Your task to perform on an android device: Look up the top rated 18v miter saw on Home Depot. Image 0: 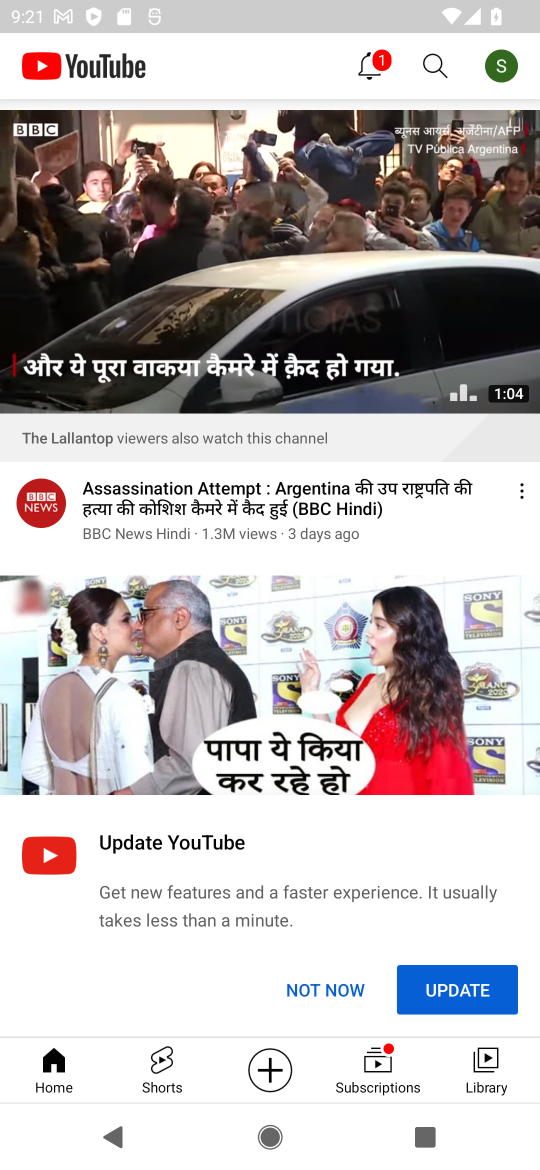
Step 0: press home button
Your task to perform on an android device: Look up the top rated 18v miter saw on Home Depot. Image 1: 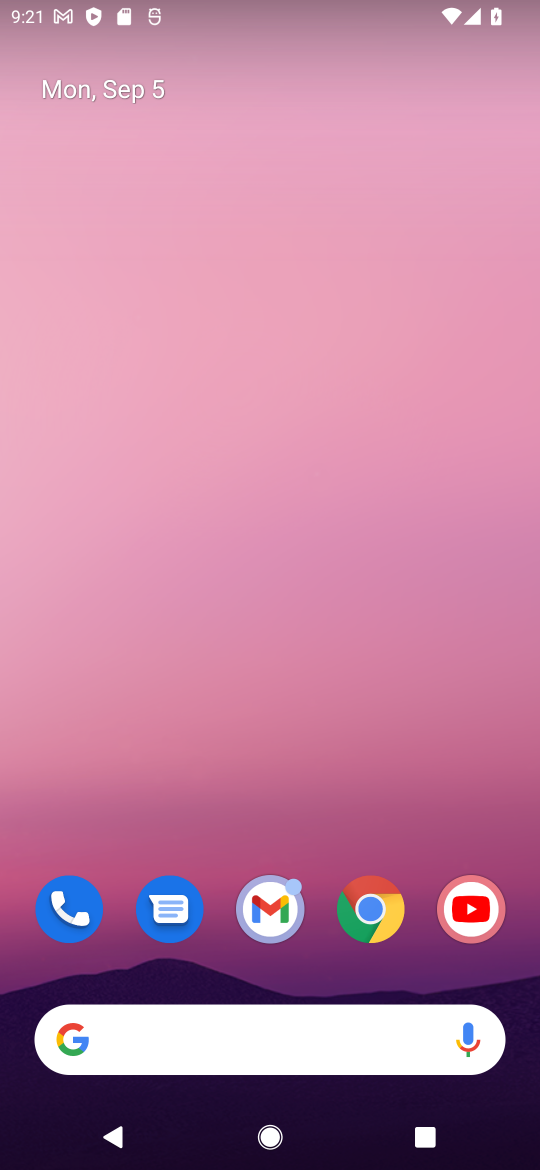
Step 1: click (346, 906)
Your task to perform on an android device: Look up the top rated 18v miter saw on Home Depot. Image 2: 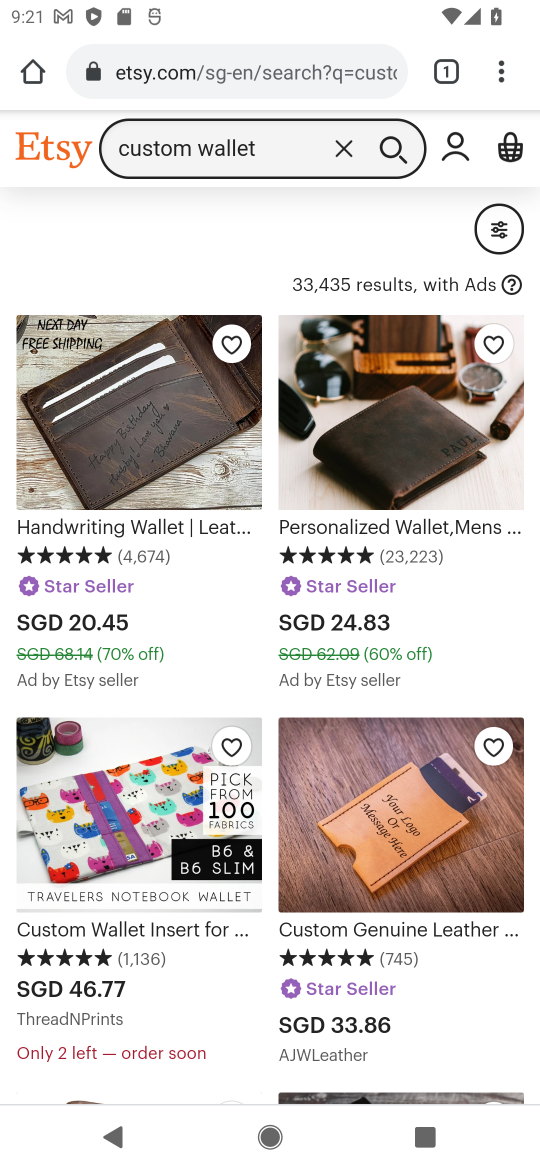
Step 2: click (280, 69)
Your task to perform on an android device: Look up the top rated 18v miter saw on Home Depot. Image 3: 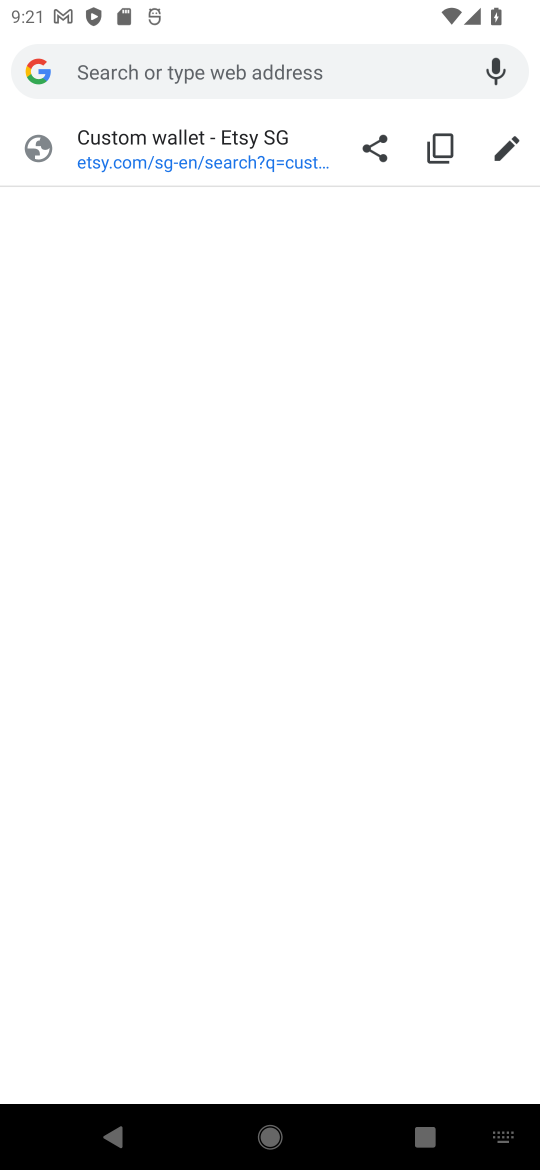
Step 3: type "homedepot"
Your task to perform on an android device: Look up the top rated 18v miter saw on Home Depot. Image 4: 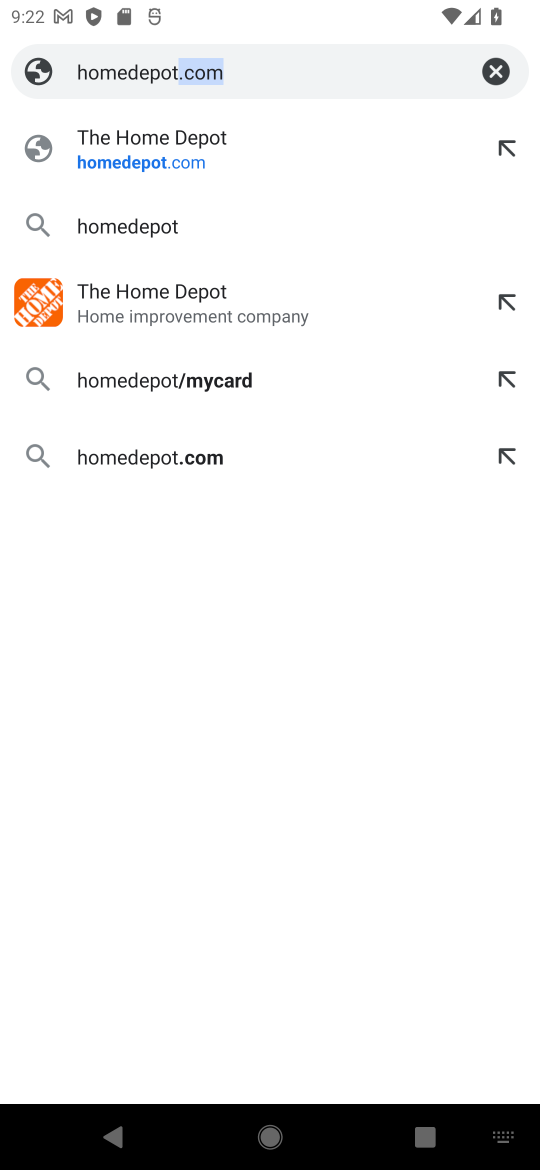
Step 4: click (247, 147)
Your task to perform on an android device: Look up the top rated 18v miter saw on Home Depot. Image 5: 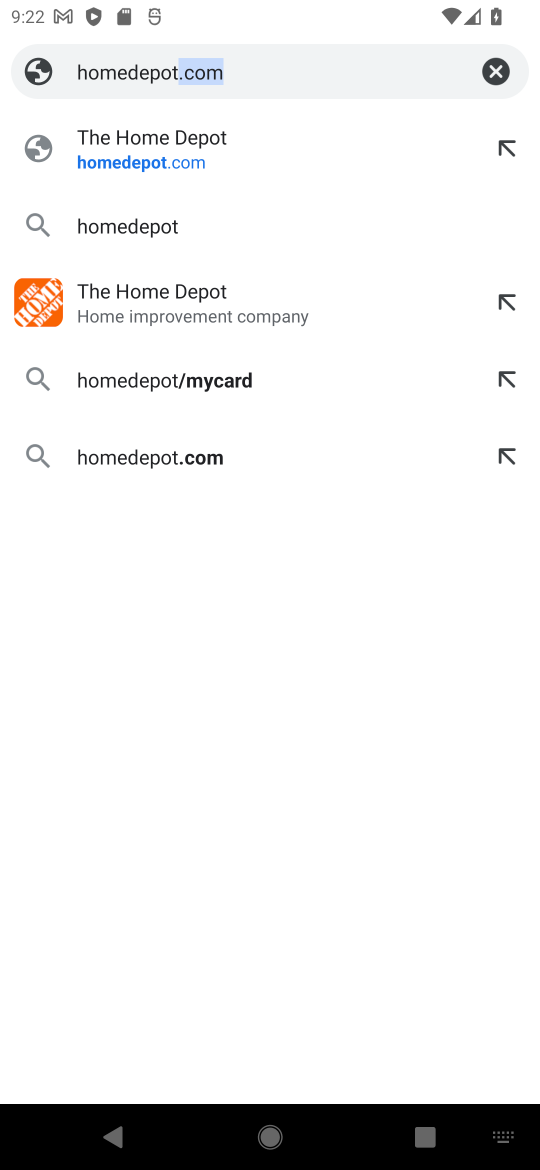
Step 5: click (187, 131)
Your task to perform on an android device: Look up the top rated 18v miter saw on Home Depot. Image 6: 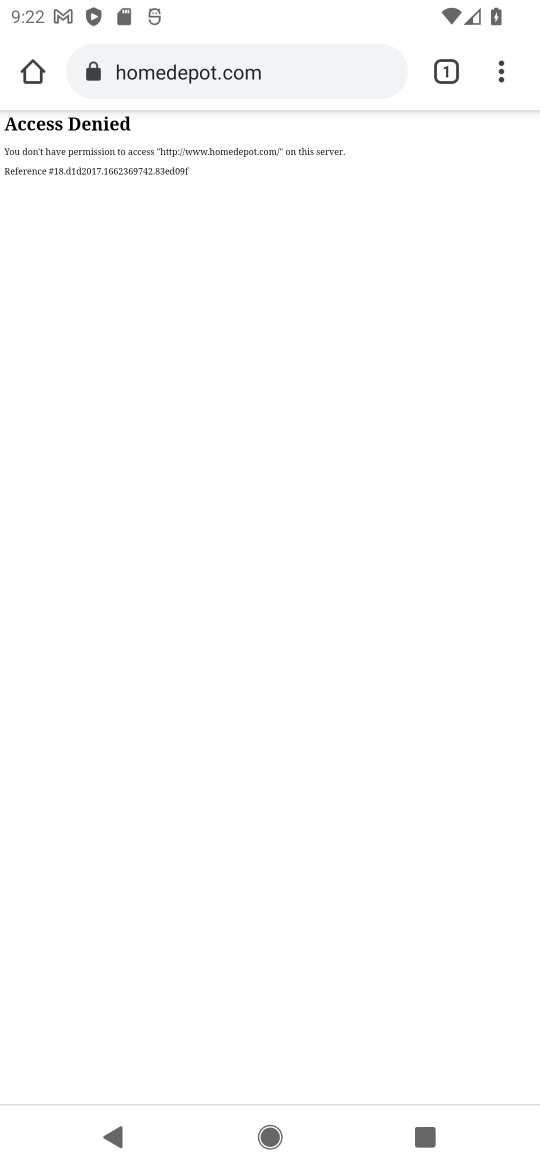
Step 6: task complete